Your task to perform on an android device: delete browsing data in the chrome app Image 0: 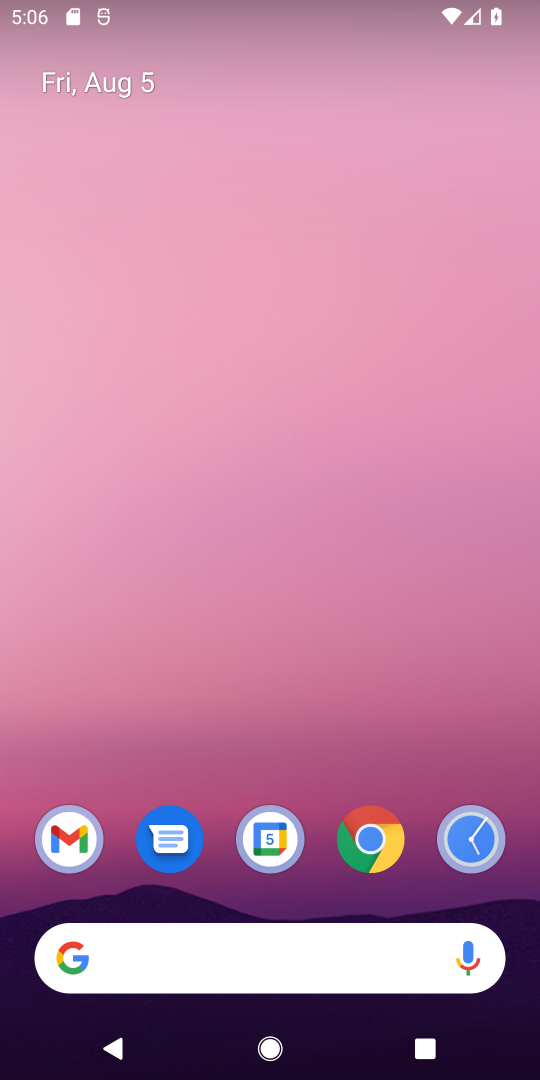
Step 0: click (385, 823)
Your task to perform on an android device: delete browsing data in the chrome app Image 1: 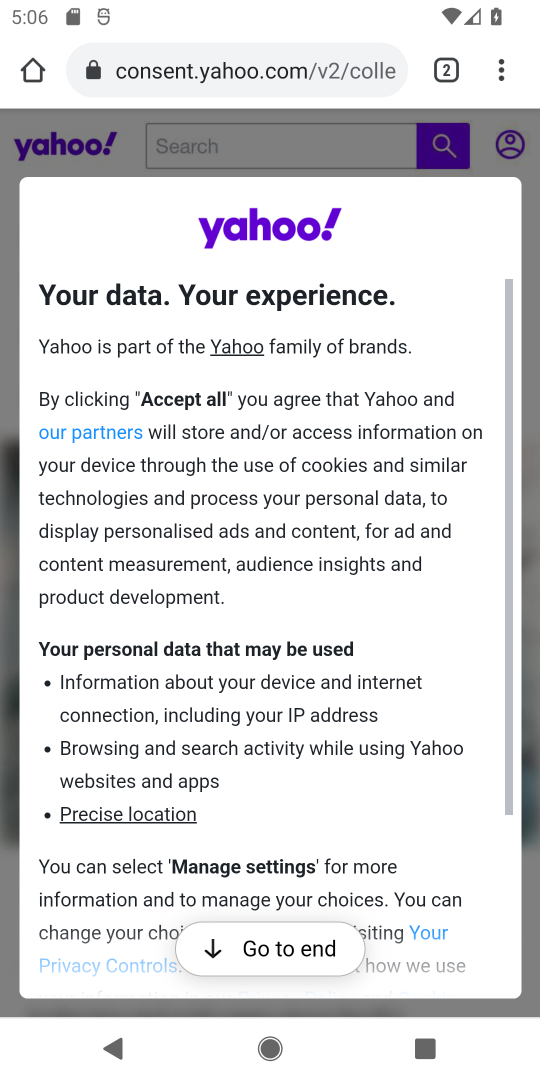
Step 1: click (497, 69)
Your task to perform on an android device: delete browsing data in the chrome app Image 2: 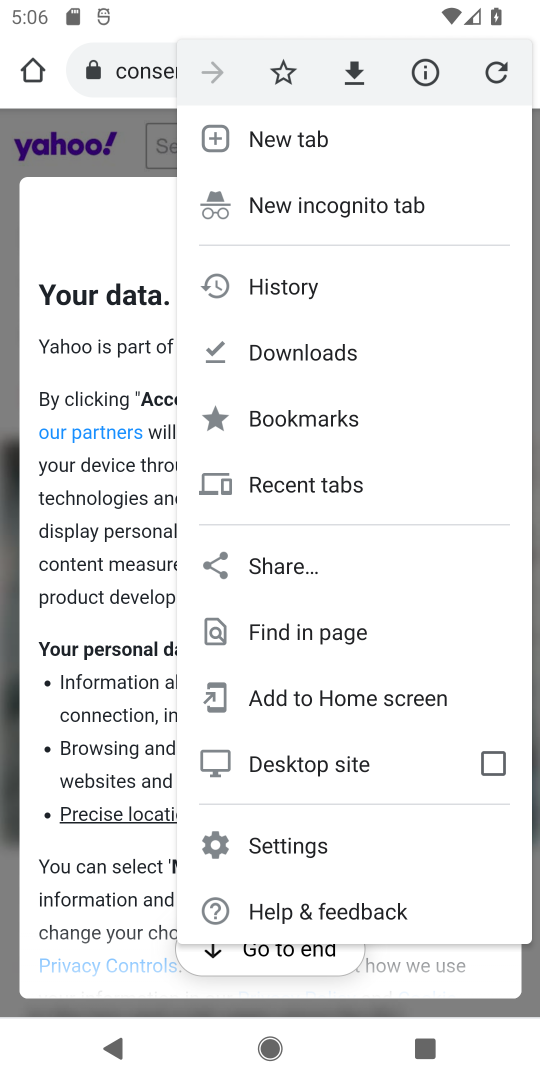
Step 2: click (306, 284)
Your task to perform on an android device: delete browsing data in the chrome app Image 3: 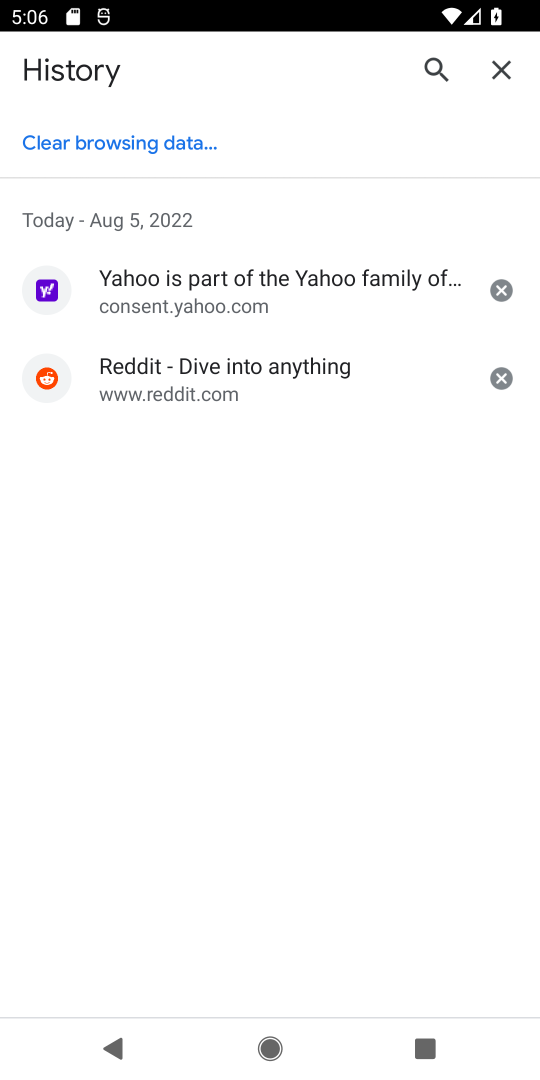
Step 3: click (117, 139)
Your task to perform on an android device: delete browsing data in the chrome app Image 4: 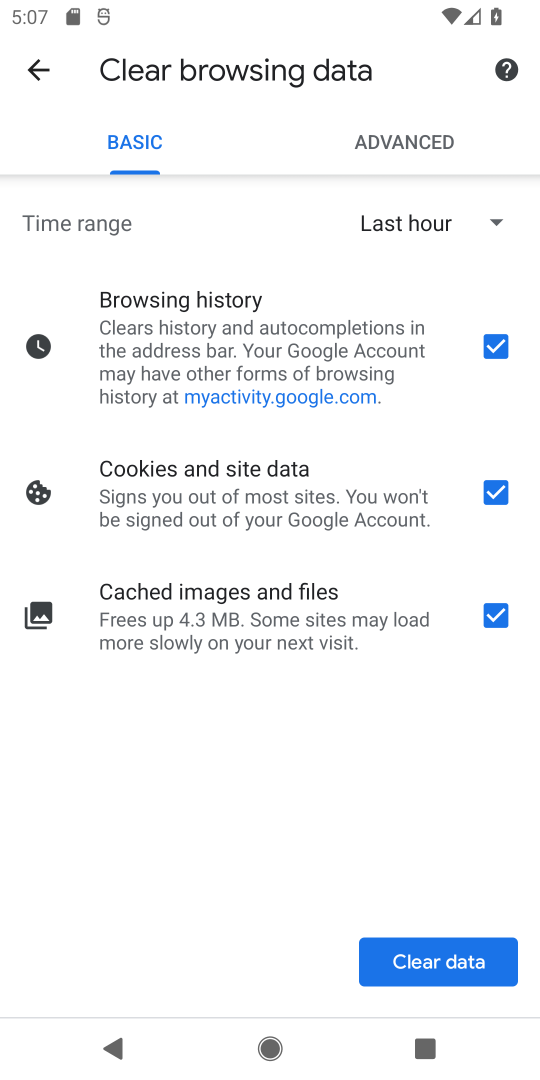
Step 4: click (414, 979)
Your task to perform on an android device: delete browsing data in the chrome app Image 5: 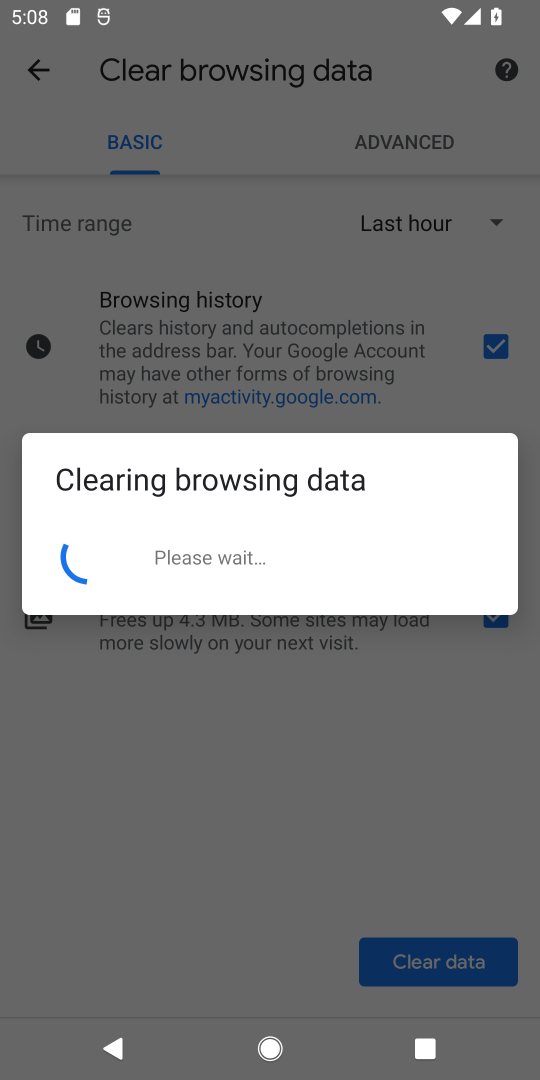
Step 5: task complete